Your task to perform on an android device: open chrome privacy settings Image 0: 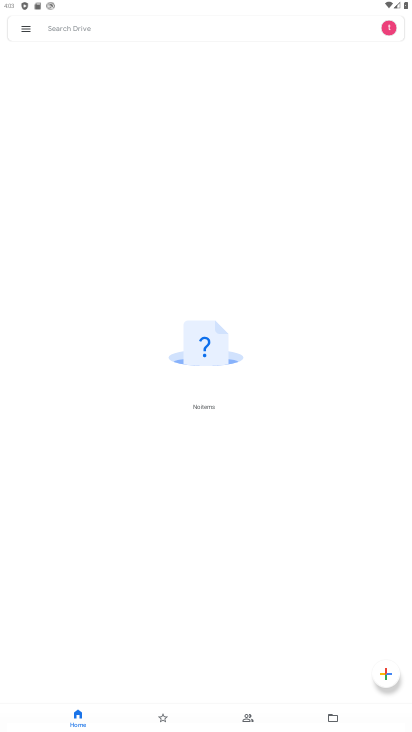
Step 0: press home button
Your task to perform on an android device: open chrome privacy settings Image 1: 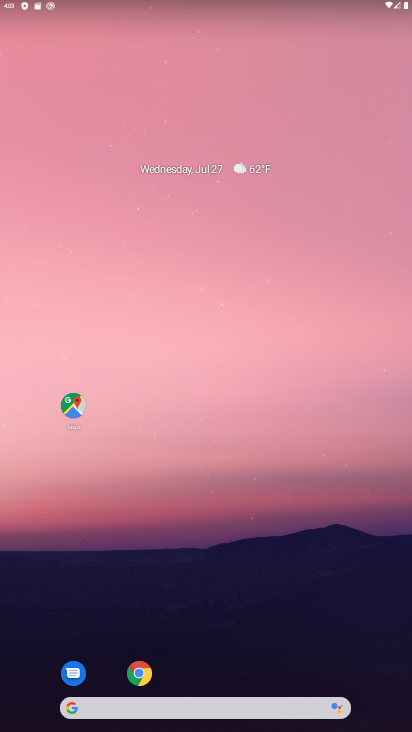
Step 1: click (146, 665)
Your task to perform on an android device: open chrome privacy settings Image 2: 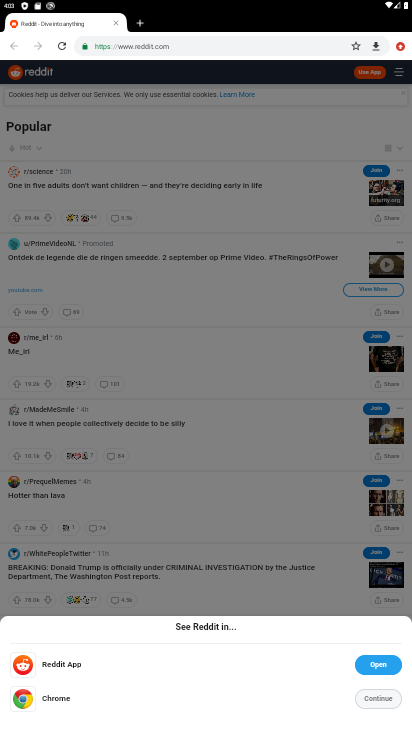
Step 2: click (141, 18)
Your task to perform on an android device: open chrome privacy settings Image 3: 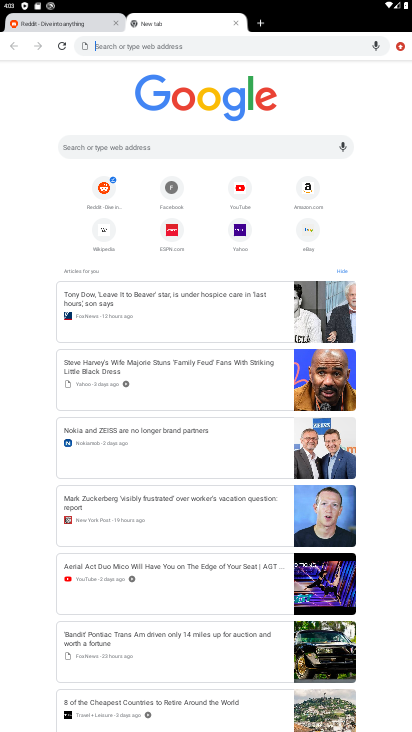
Step 3: drag from (352, 95) to (372, 405)
Your task to perform on an android device: open chrome privacy settings Image 4: 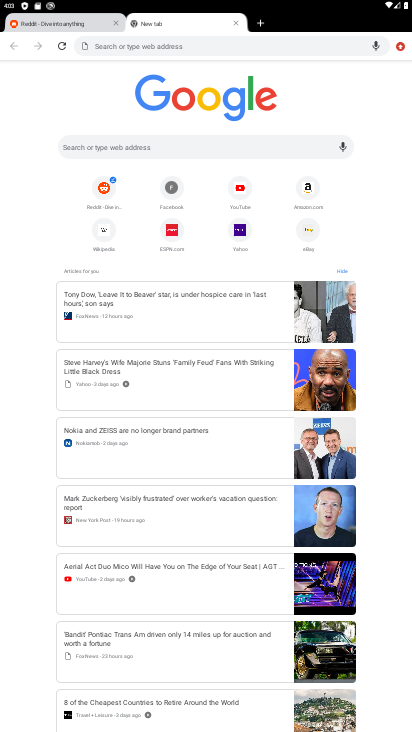
Step 4: drag from (317, 85) to (411, 372)
Your task to perform on an android device: open chrome privacy settings Image 5: 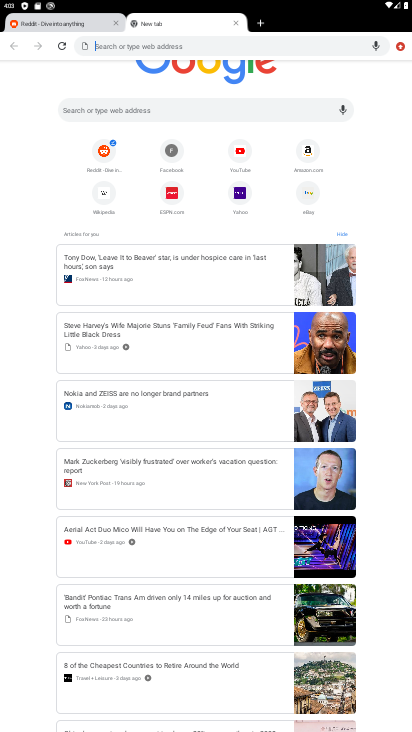
Step 5: drag from (379, 65) to (394, 447)
Your task to perform on an android device: open chrome privacy settings Image 6: 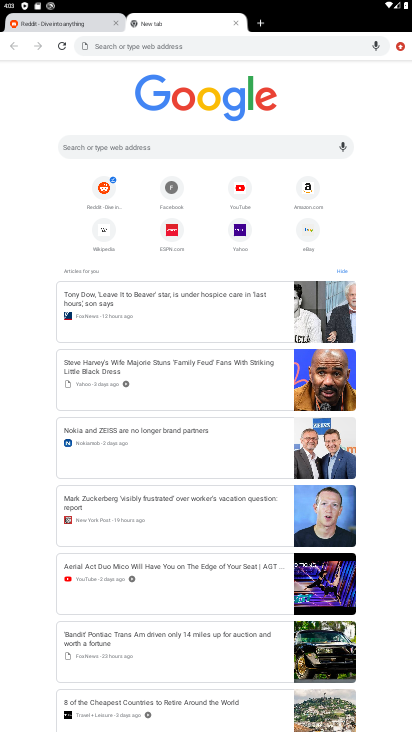
Step 6: drag from (384, 131) to (406, 355)
Your task to perform on an android device: open chrome privacy settings Image 7: 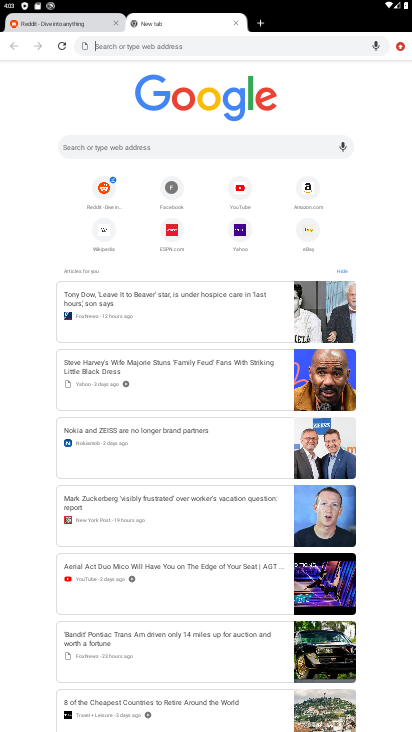
Step 7: click (236, 21)
Your task to perform on an android device: open chrome privacy settings Image 8: 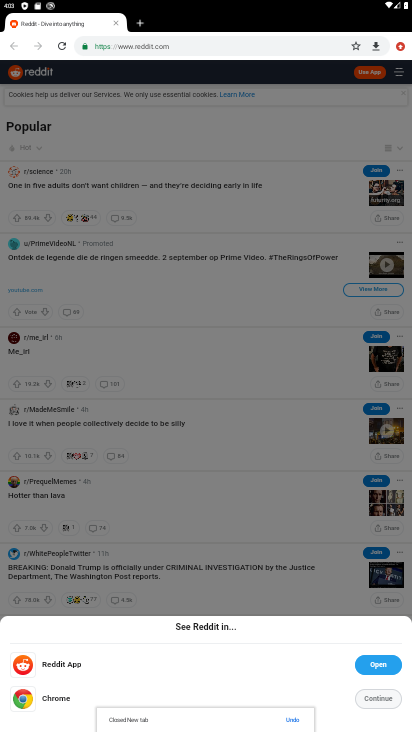
Step 8: click (112, 24)
Your task to perform on an android device: open chrome privacy settings Image 9: 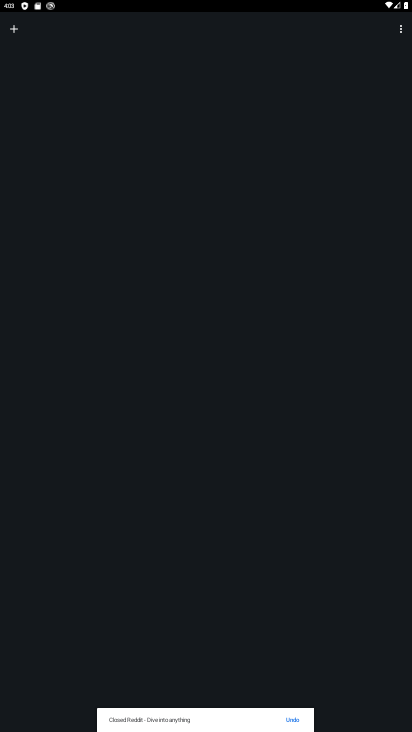
Step 9: click (404, 26)
Your task to perform on an android device: open chrome privacy settings Image 10: 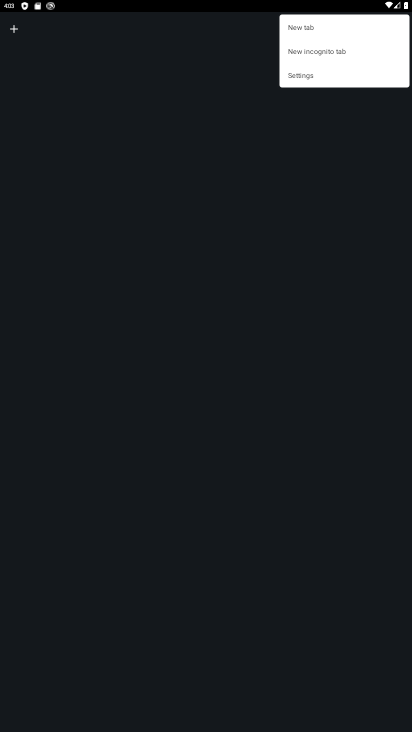
Step 10: click (291, 74)
Your task to perform on an android device: open chrome privacy settings Image 11: 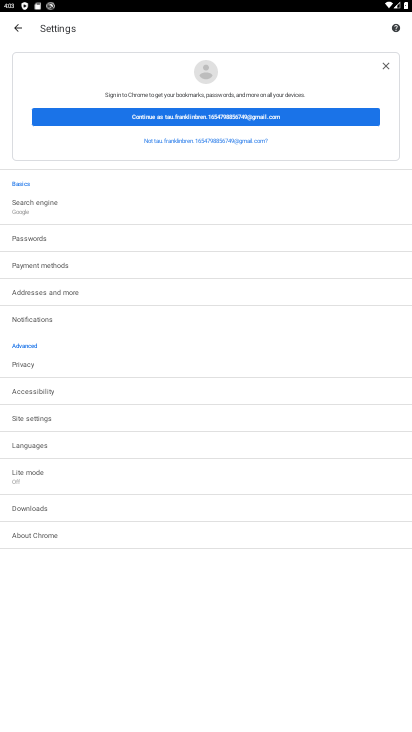
Step 11: click (59, 363)
Your task to perform on an android device: open chrome privacy settings Image 12: 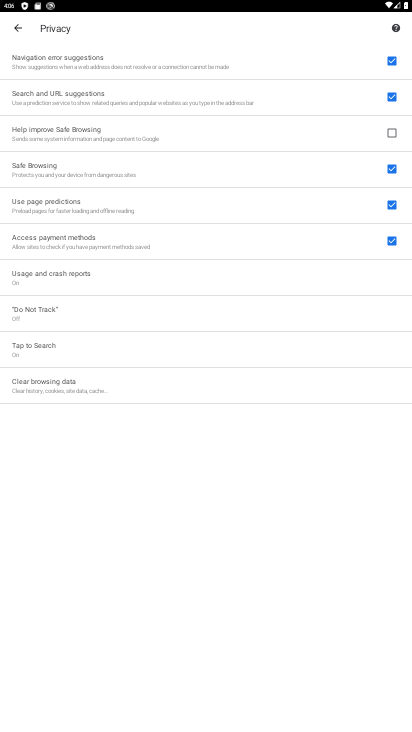
Step 12: task complete